Your task to perform on an android device: Is it going to rain tomorrow? Image 0: 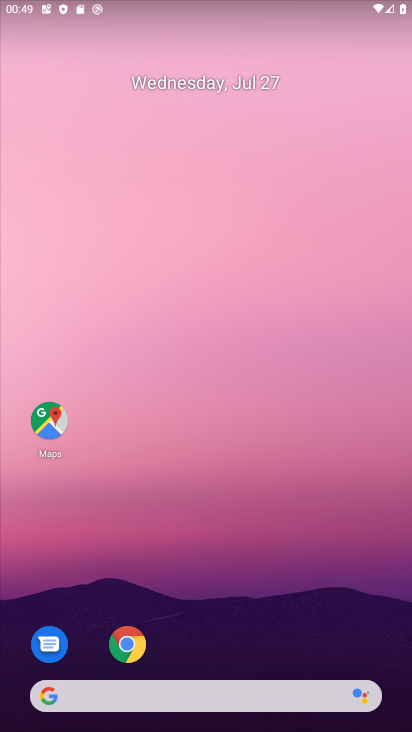
Step 0: drag from (228, 492) to (194, 156)
Your task to perform on an android device: Is it going to rain tomorrow? Image 1: 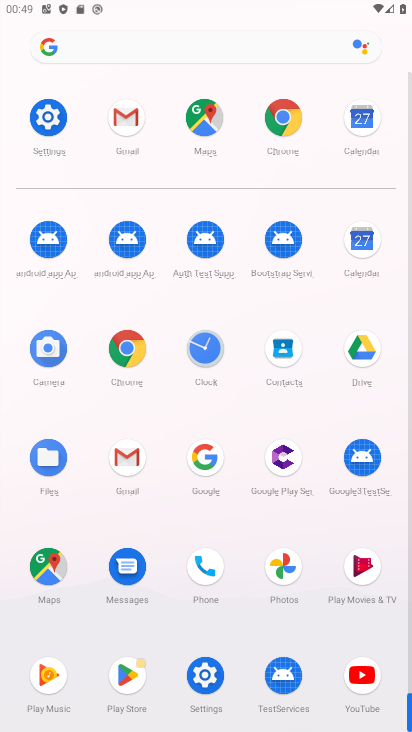
Step 1: click (274, 108)
Your task to perform on an android device: Is it going to rain tomorrow? Image 2: 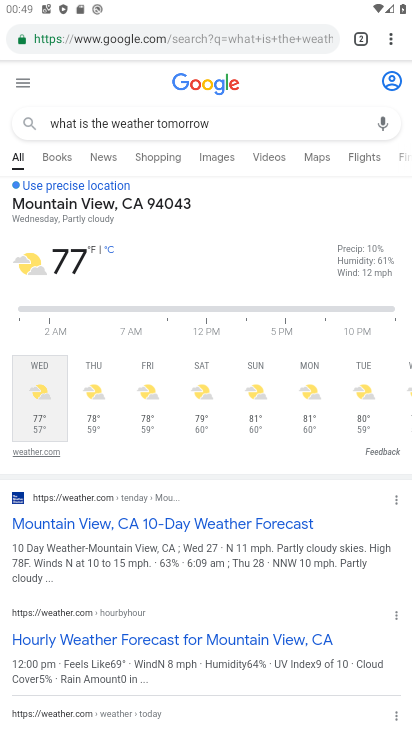
Step 2: task complete